Your task to perform on an android device: Search for "usb-c to usb-a" on amazon.com, select the first entry, and add it to the cart. Image 0: 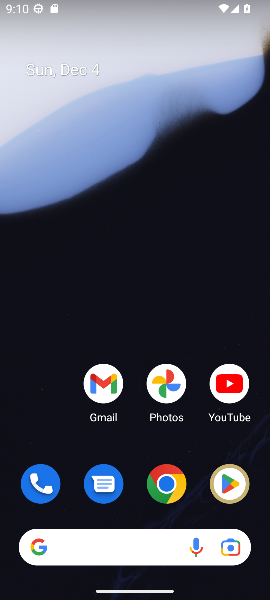
Step 0: click (174, 479)
Your task to perform on an android device: Search for "usb-c to usb-a" on amazon.com, select the first entry, and add it to the cart. Image 1: 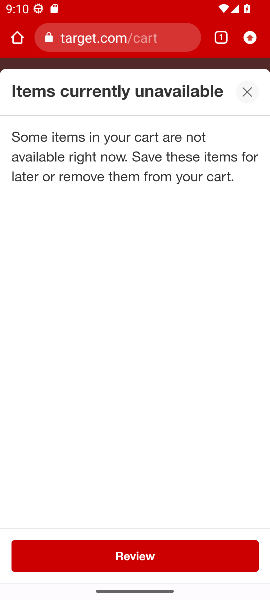
Step 1: click (104, 44)
Your task to perform on an android device: Search for "usb-c to usb-a" on amazon.com, select the first entry, and add it to the cart. Image 2: 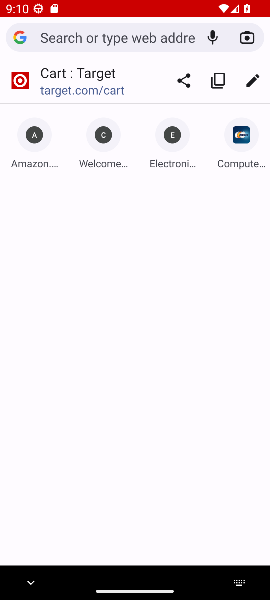
Step 2: click (36, 152)
Your task to perform on an android device: Search for "usb-c to usb-a" on amazon.com, select the first entry, and add it to the cart. Image 3: 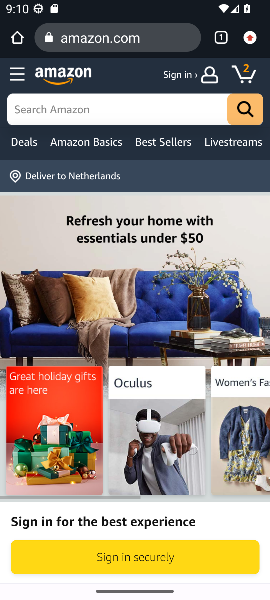
Step 3: click (51, 106)
Your task to perform on an android device: Search for "usb-c to usb-a" on amazon.com, select the first entry, and add it to the cart. Image 4: 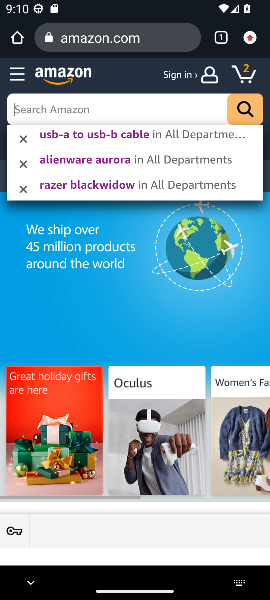
Step 4: type "usb-c to usb-a"
Your task to perform on an android device: Search for "usb-c to usb-a" on amazon.com, select the first entry, and add it to the cart. Image 5: 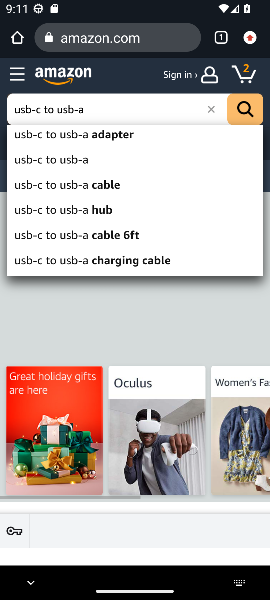
Step 5: click (69, 162)
Your task to perform on an android device: Search for "usb-c to usb-a" on amazon.com, select the first entry, and add it to the cart. Image 6: 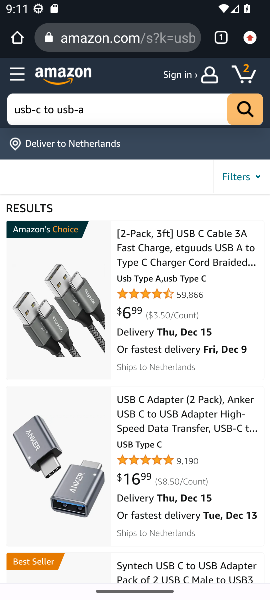
Step 6: click (157, 262)
Your task to perform on an android device: Search for "usb-c to usb-a" on amazon.com, select the first entry, and add it to the cart. Image 7: 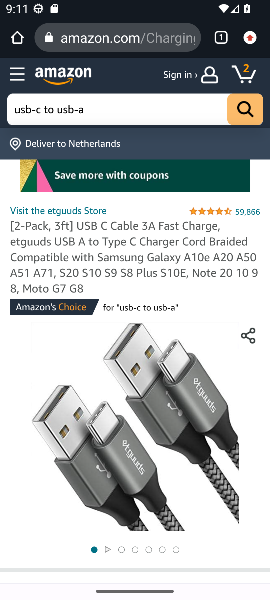
Step 7: task complete